Your task to perform on an android device: see creations saved in the google photos Image 0: 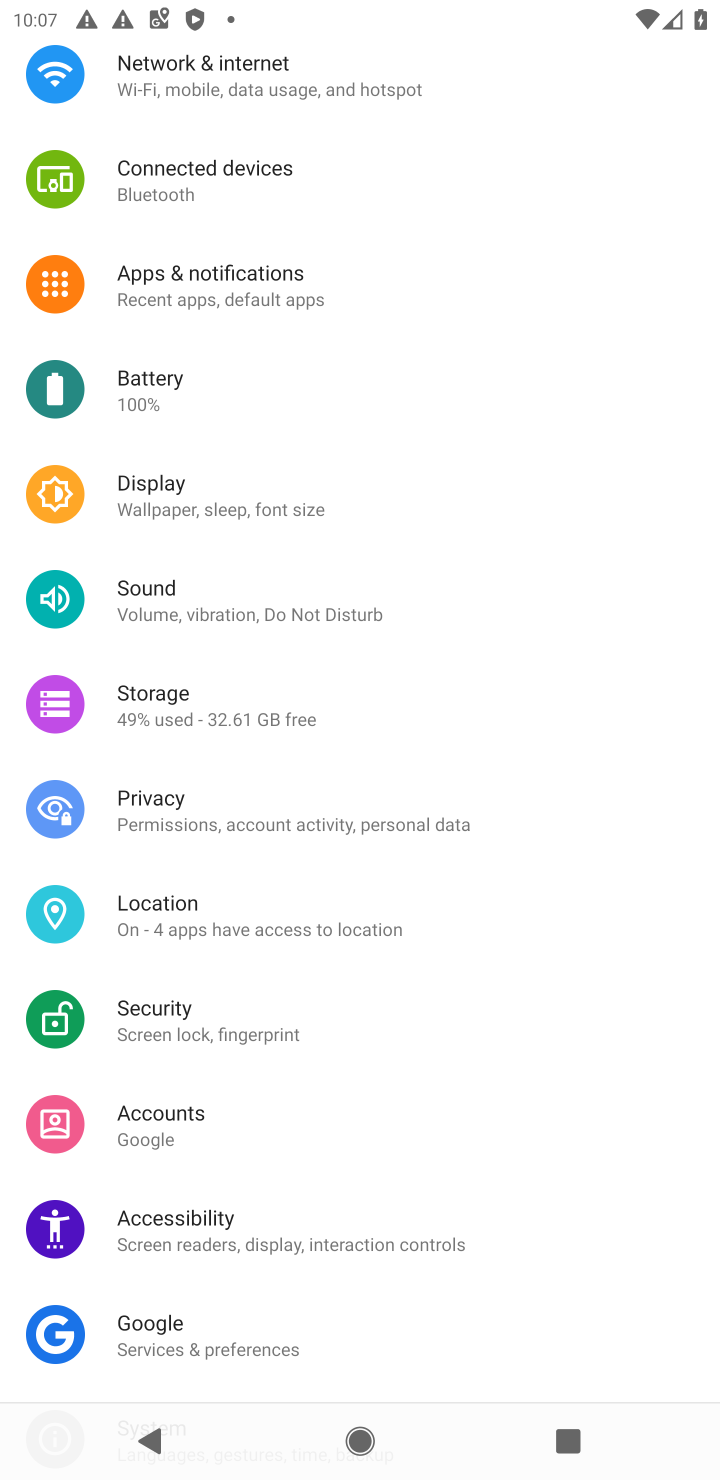
Step 0: press home button
Your task to perform on an android device: see creations saved in the google photos Image 1: 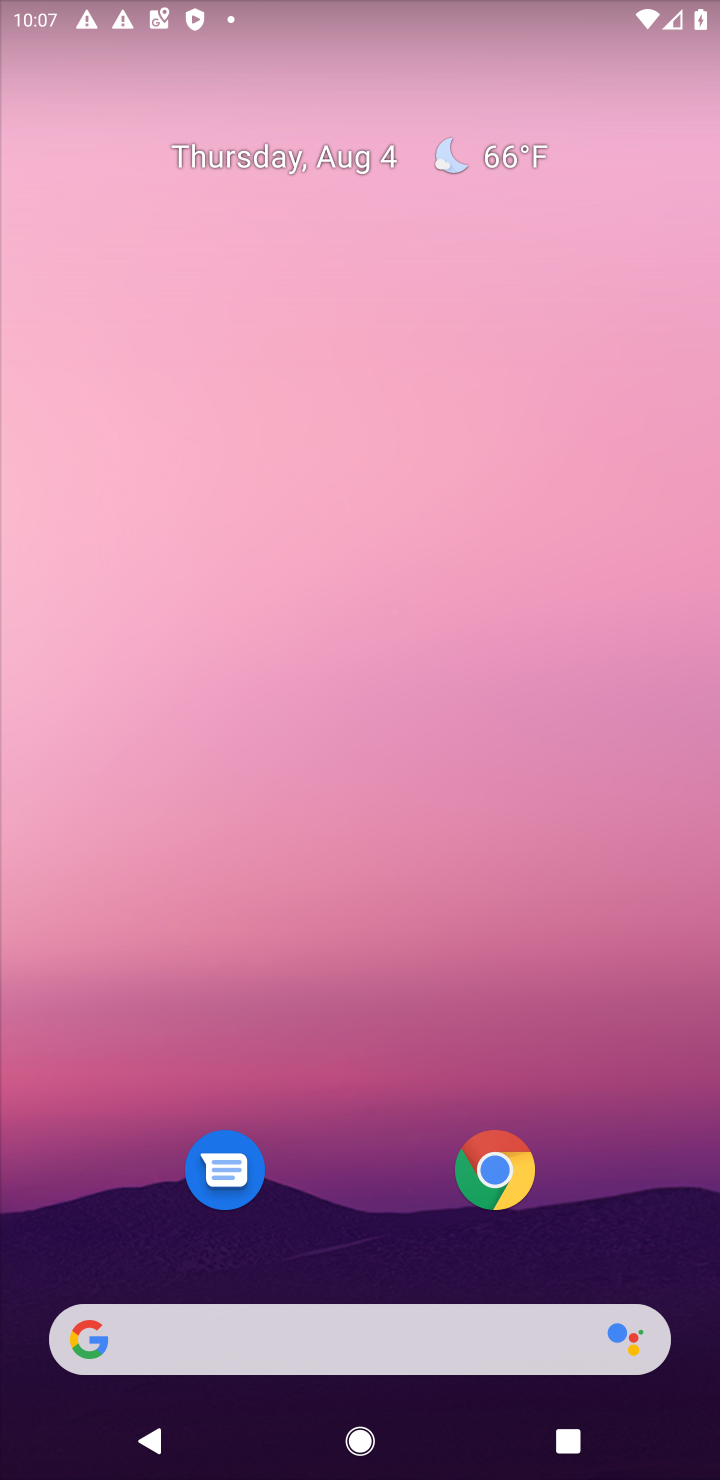
Step 1: drag from (336, 850) to (534, 138)
Your task to perform on an android device: see creations saved in the google photos Image 2: 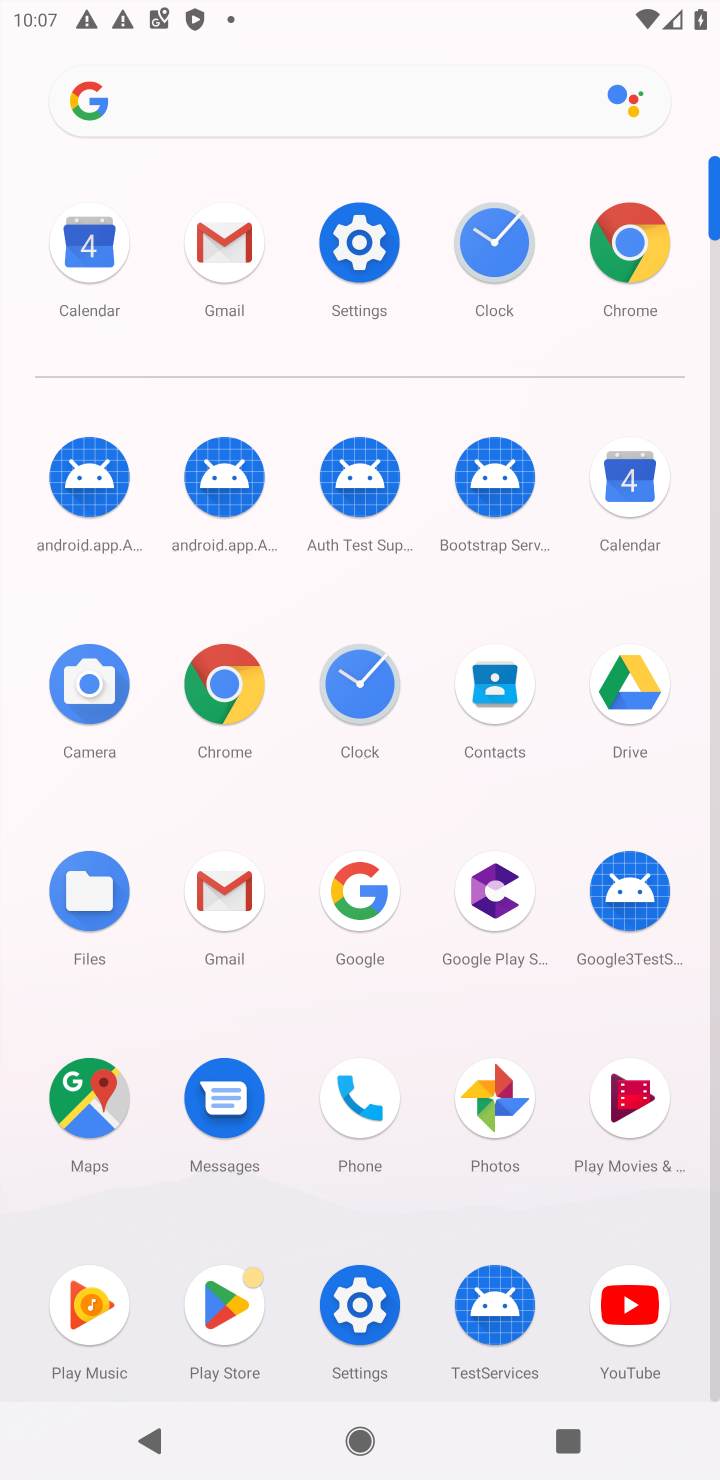
Step 2: click (480, 1096)
Your task to perform on an android device: see creations saved in the google photos Image 3: 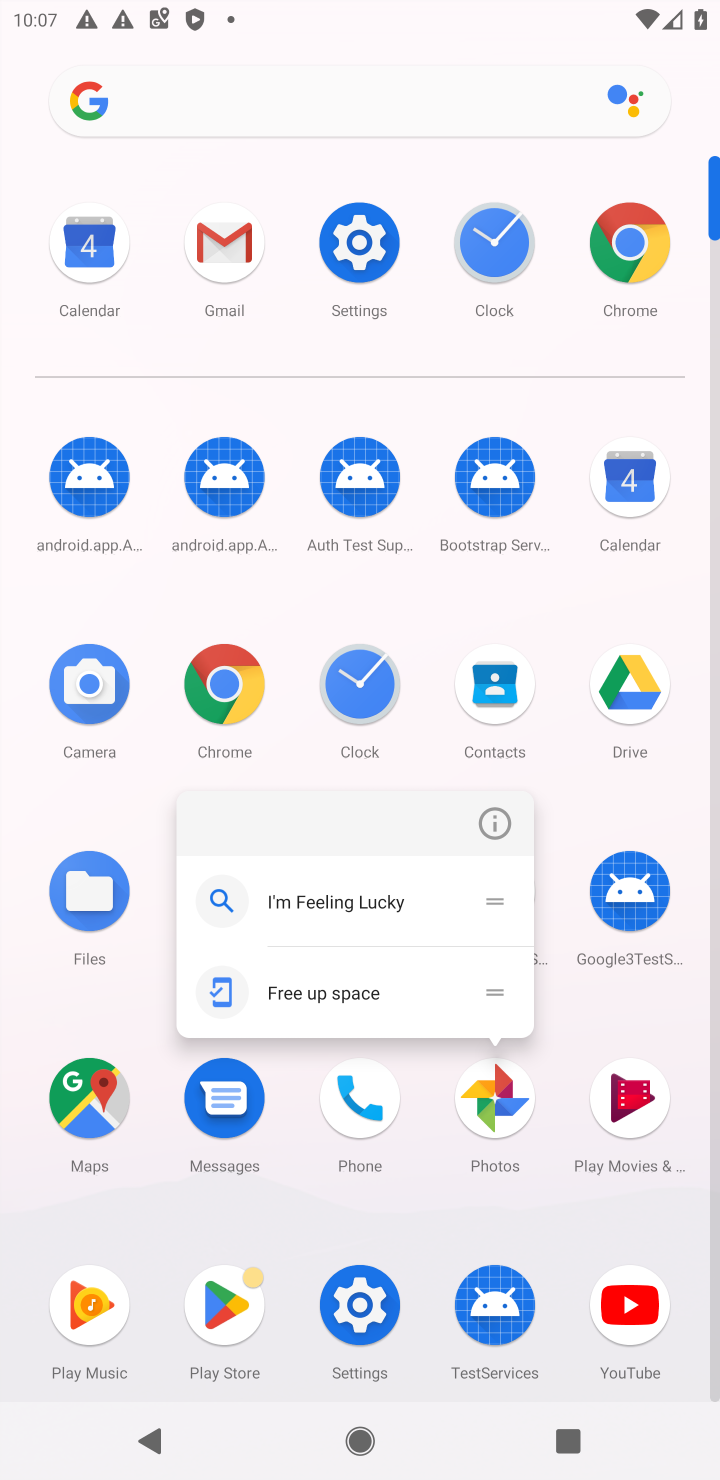
Step 3: click (480, 1101)
Your task to perform on an android device: see creations saved in the google photos Image 4: 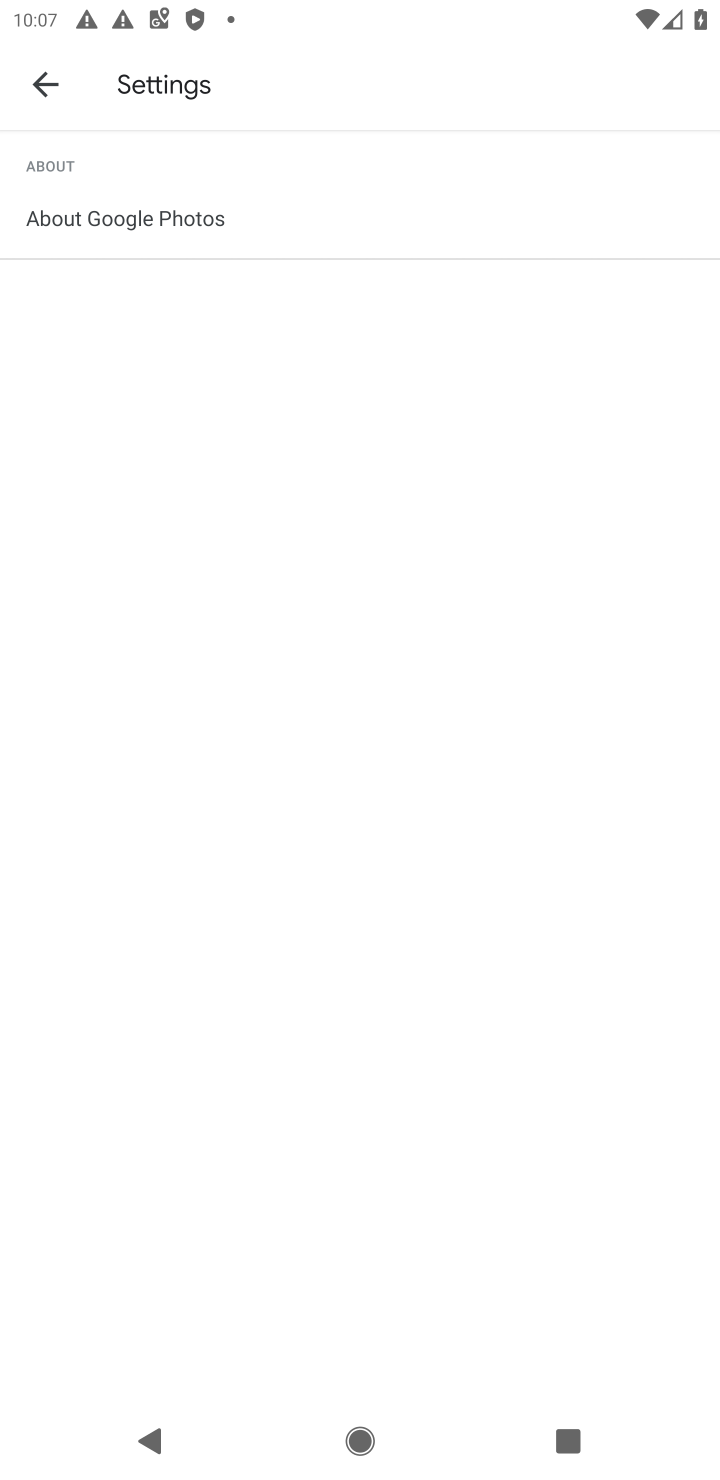
Step 4: click (34, 87)
Your task to perform on an android device: see creations saved in the google photos Image 5: 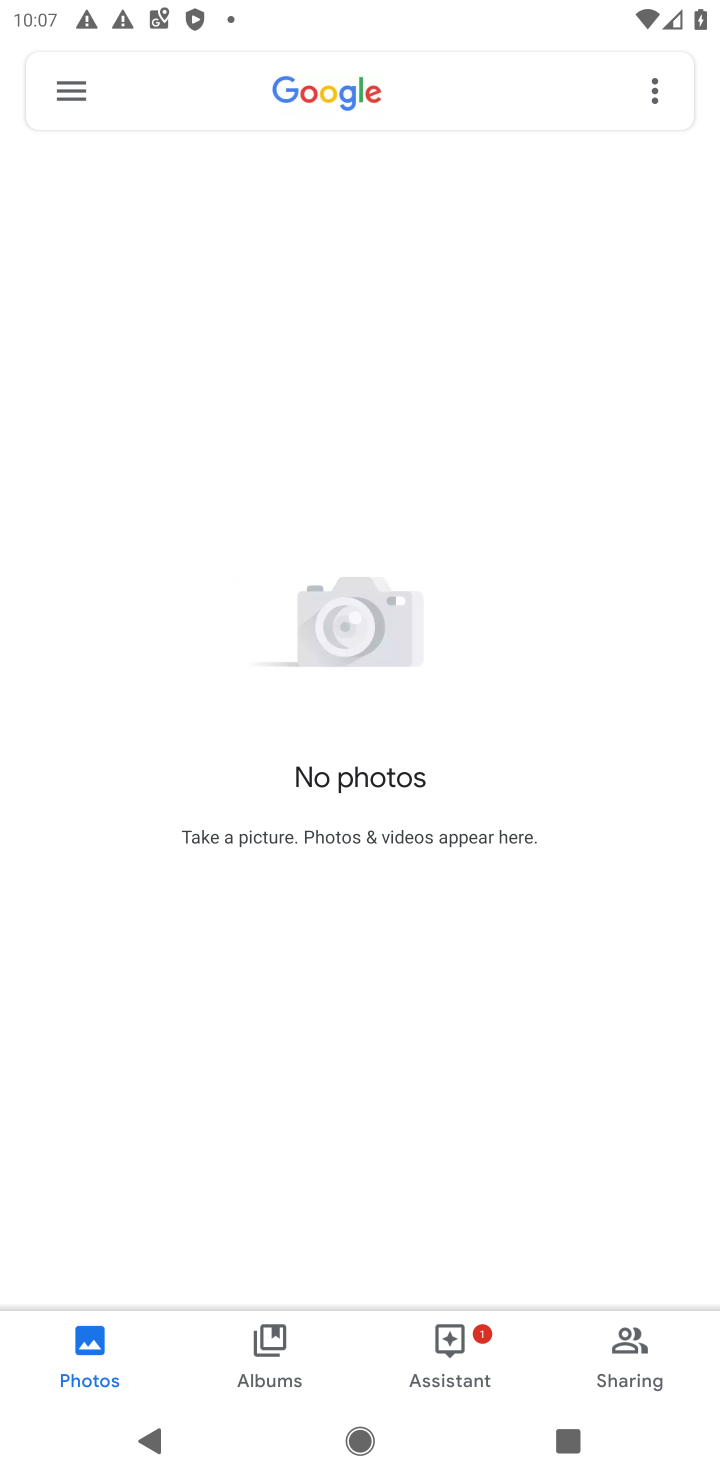
Step 5: click (271, 1366)
Your task to perform on an android device: see creations saved in the google photos Image 6: 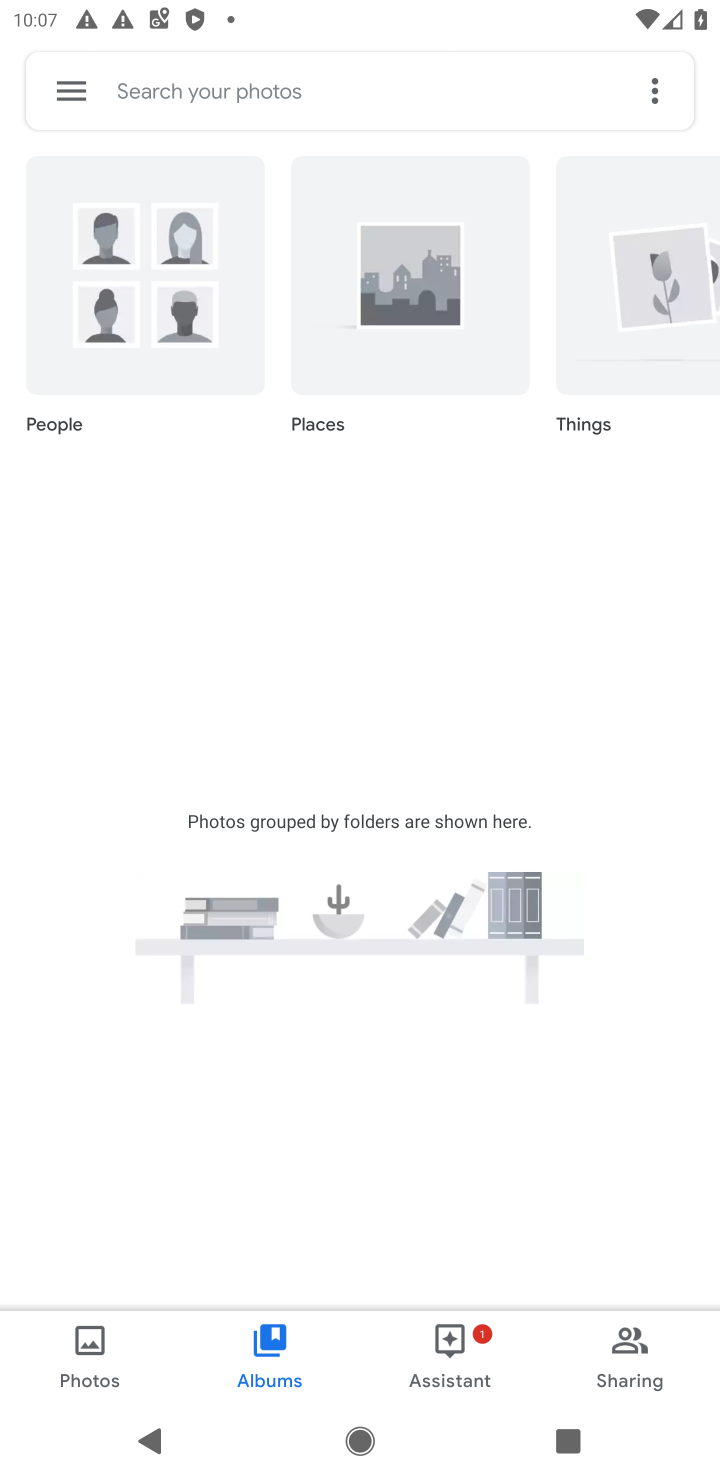
Step 6: task complete